Your task to perform on an android device: set the timer Image 0: 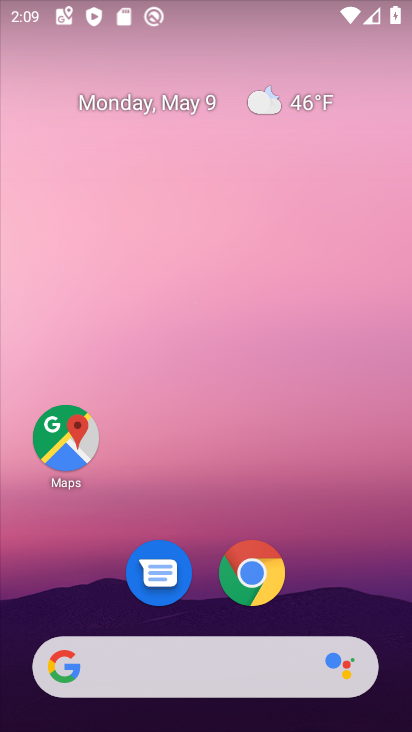
Step 0: drag from (200, 585) to (212, 185)
Your task to perform on an android device: set the timer Image 1: 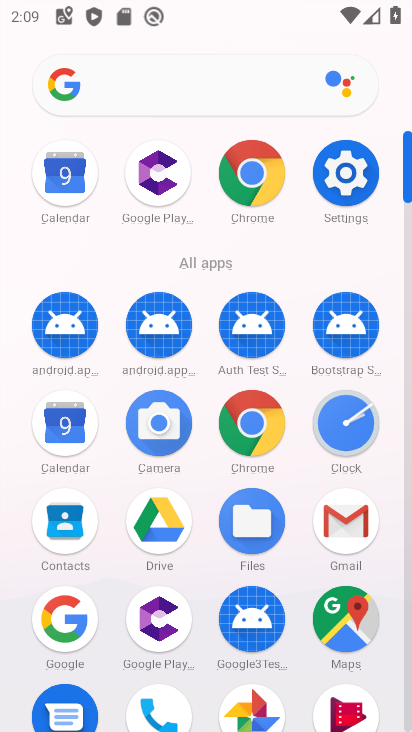
Step 1: click (351, 430)
Your task to perform on an android device: set the timer Image 2: 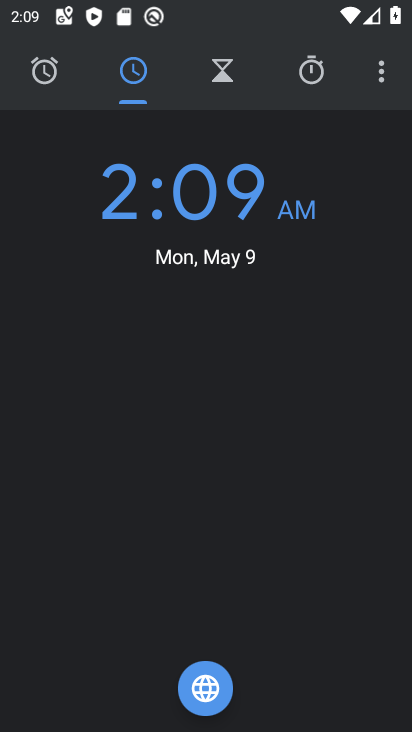
Step 2: click (222, 85)
Your task to perform on an android device: set the timer Image 3: 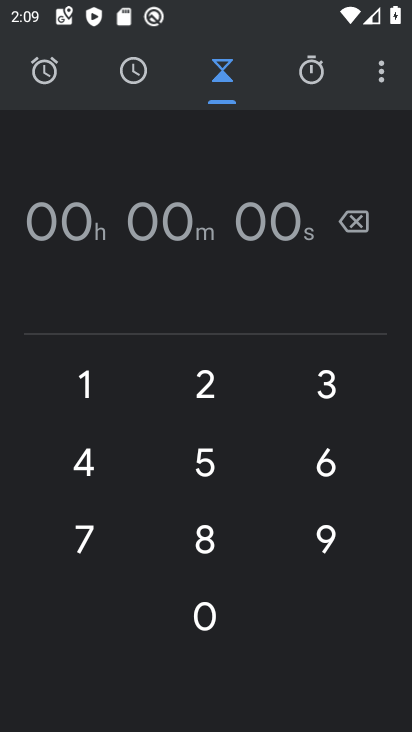
Step 3: click (216, 405)
Your task to perform on an android device: set the timer Image 4: 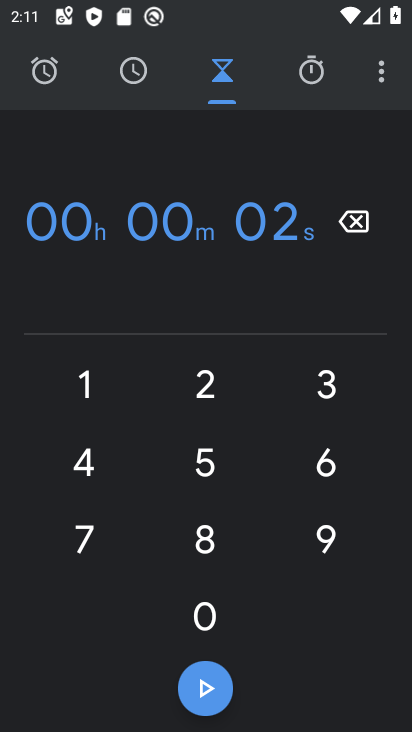
Step 4: task complete